Your task to perform on an android device: turn off airplane mode Image 0: 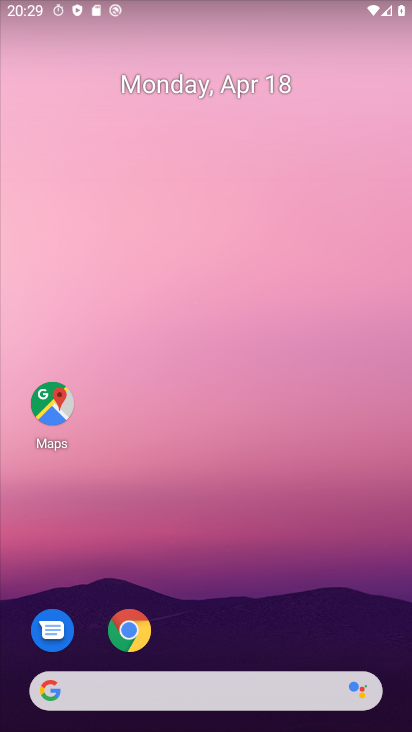
Step 0: click (179, 691)
Your task to perform on an android device: turn off airplane mode Image 1: 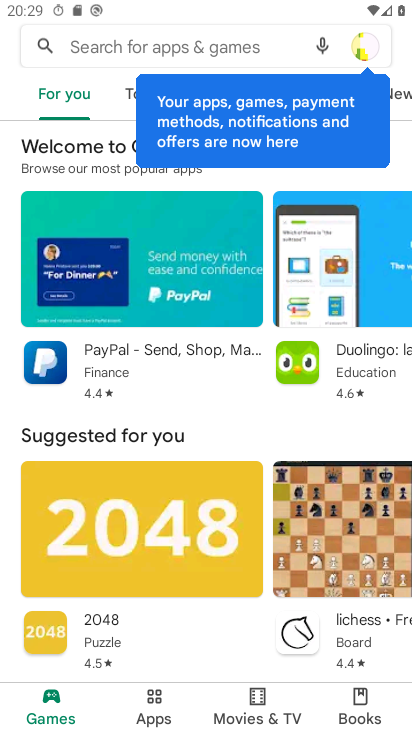
Step 1: press home button
Your task to perform on an android device: turn off airplane mode Image 2: 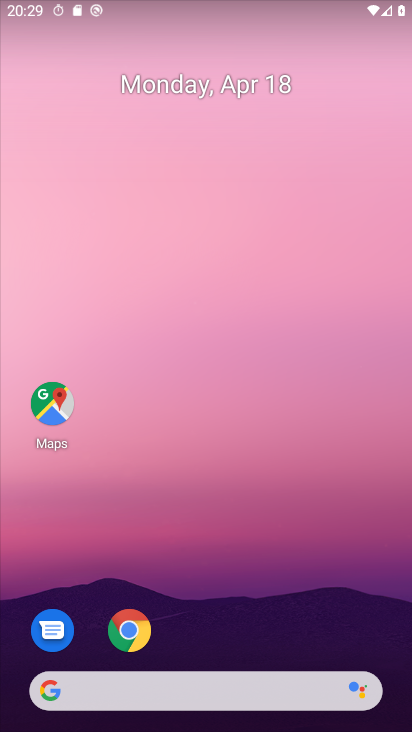
Step 2: drag from (256, 537) to (355, 116)
Your task to perform on an android device: turn off airplane mode Image 3: 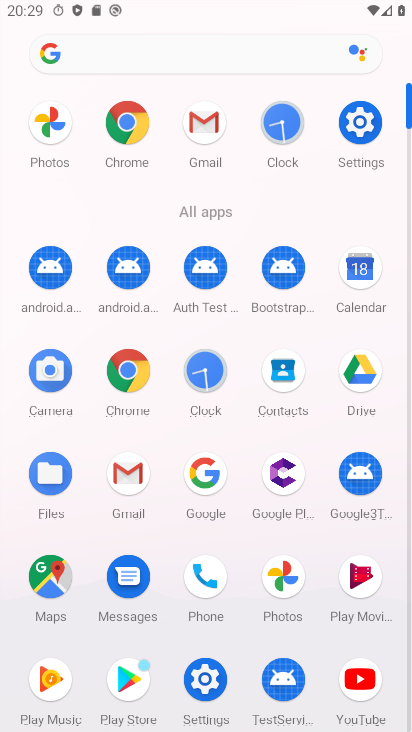
Step 3: click (375, 119)
Your task to perform on an android device: turn off airplane mode Image 4: 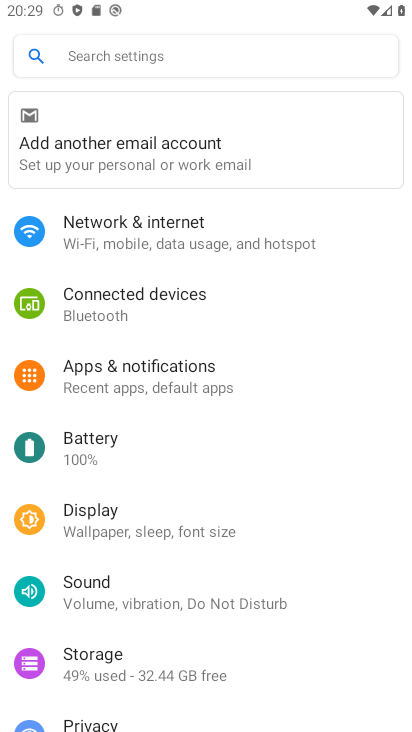
Step 4: click (180, 236)
Your task to perform on an android device: turn off airplane mode Image 5: 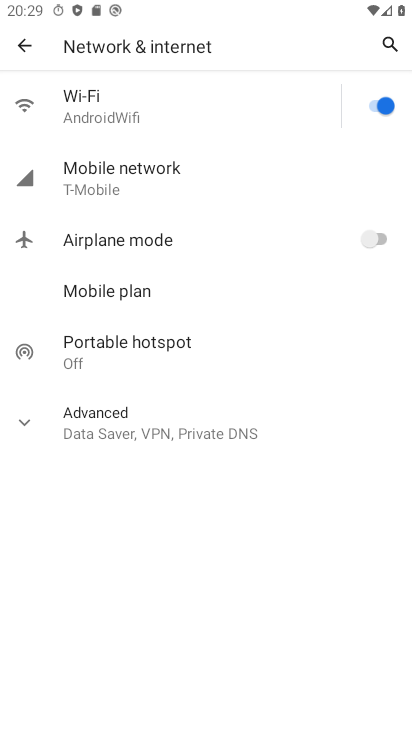
Step 5: click (368, 241)
Your task to perform on an android device: turn off airplane mode Image 6: 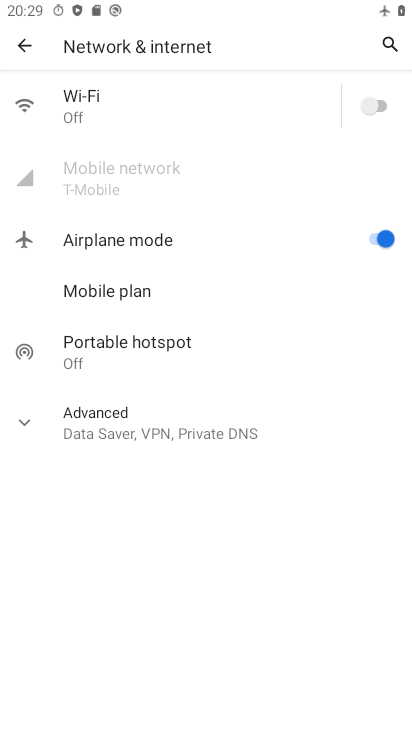
Step 6: task complete